Your task to perform on an android device: Show me the alarms in the clock app Image 0: 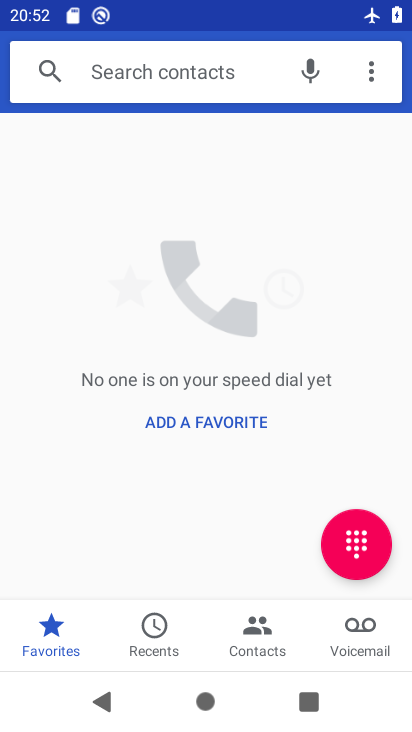
Step 0: press home button
Your task to perform on an android device: Show me the alarms in the clock app Image 1: 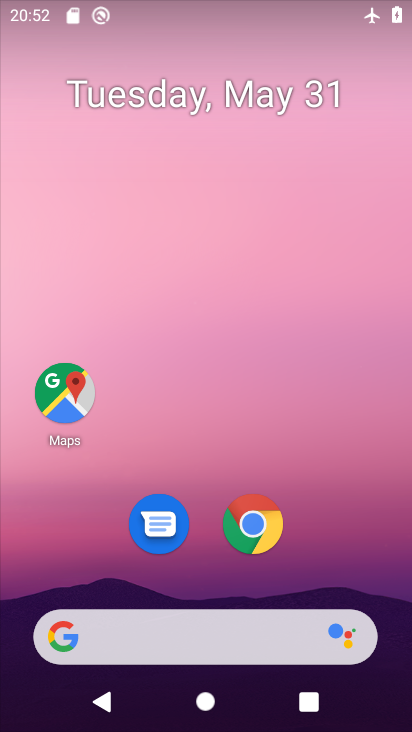
Step 1: drag from (310, 551) to (313, 24)
Your task to perform on an android device: Show me the alarms in the clock app Image 2: 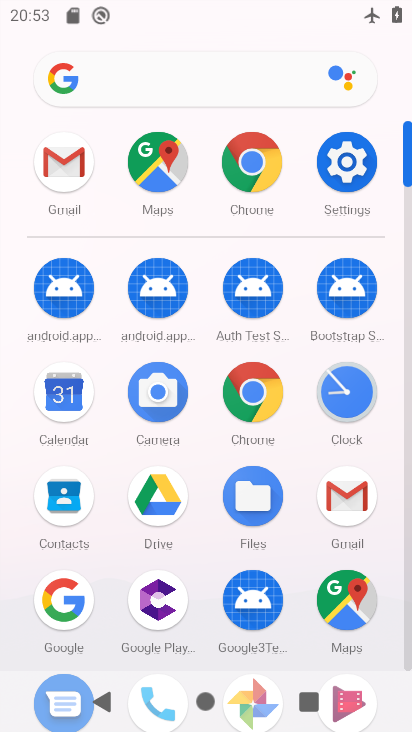
Step 2: click (346, 395)
Your task to perform on an android device: Show me the alarms in the clock app Image 3: 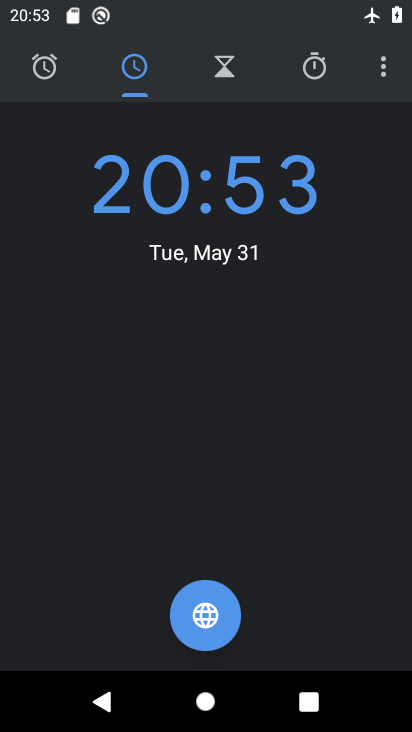
Step 3: click (53, 77)
Your task to perform on an android device: Show me the alarms in the clock app Image 4: 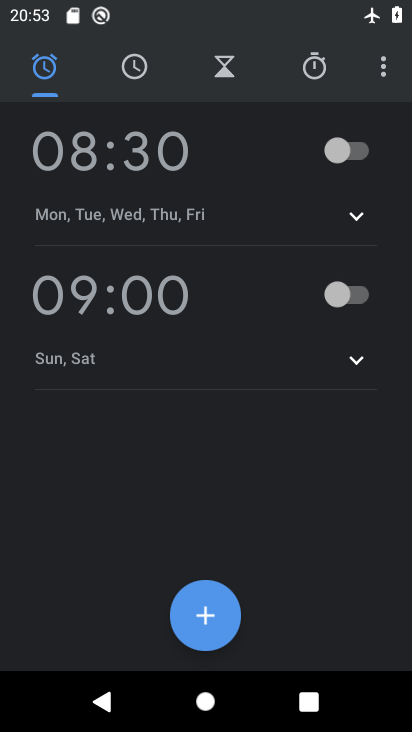
Step 4: task complete